Your task to perform on an android device: install app "Booking.com: Hotels and more" Image 0: 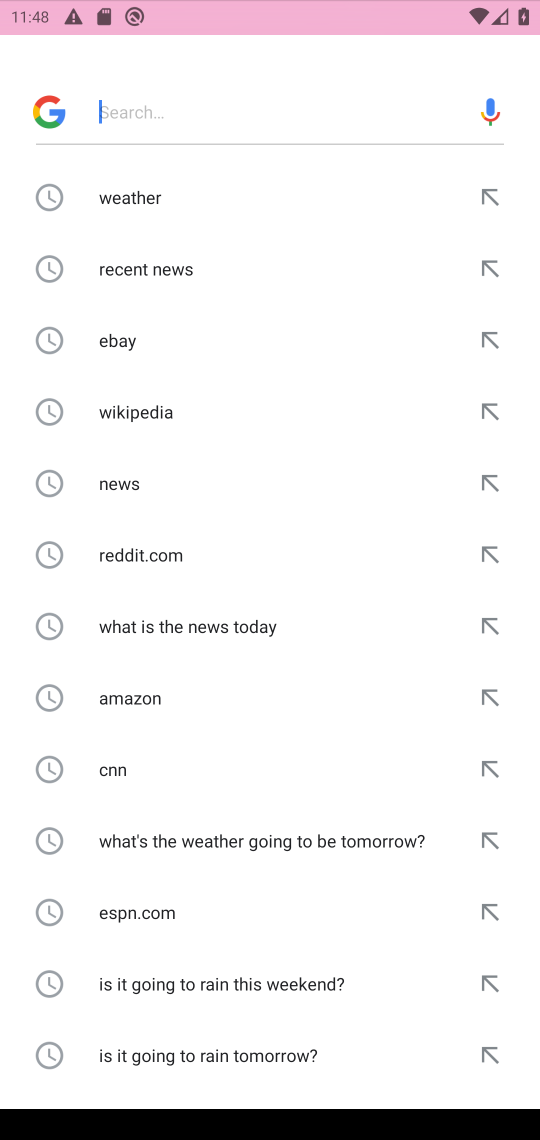
Step 0: press home button
Your task to perform on an android device: install app "Booking.com: Hotels and more" Image 1: 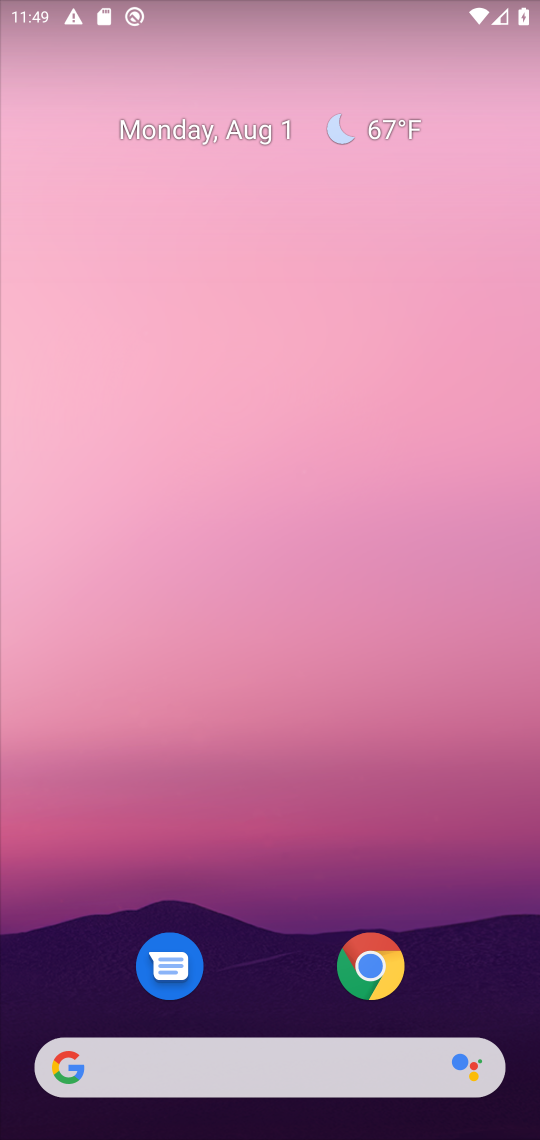
Step 1: drag from (469, 976) to (452, 83)
Your task to perform on an android device: install app "Booking.com: Hotels and more" Image 2: 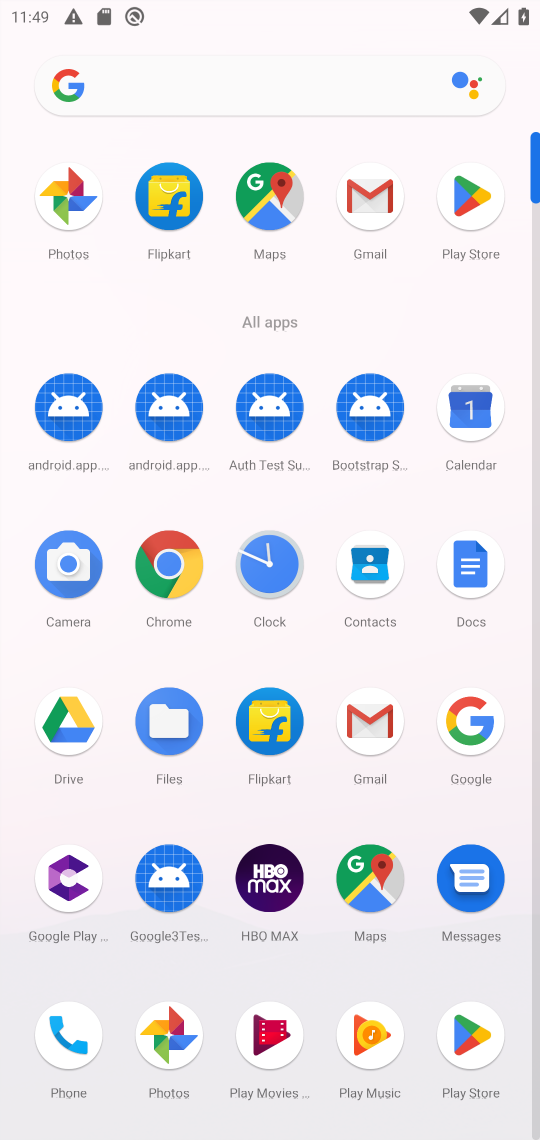
Step 2: click (443, 1033)
Your task to perform on an android device: install app "Booking.com: Hotels and more" Image 3: 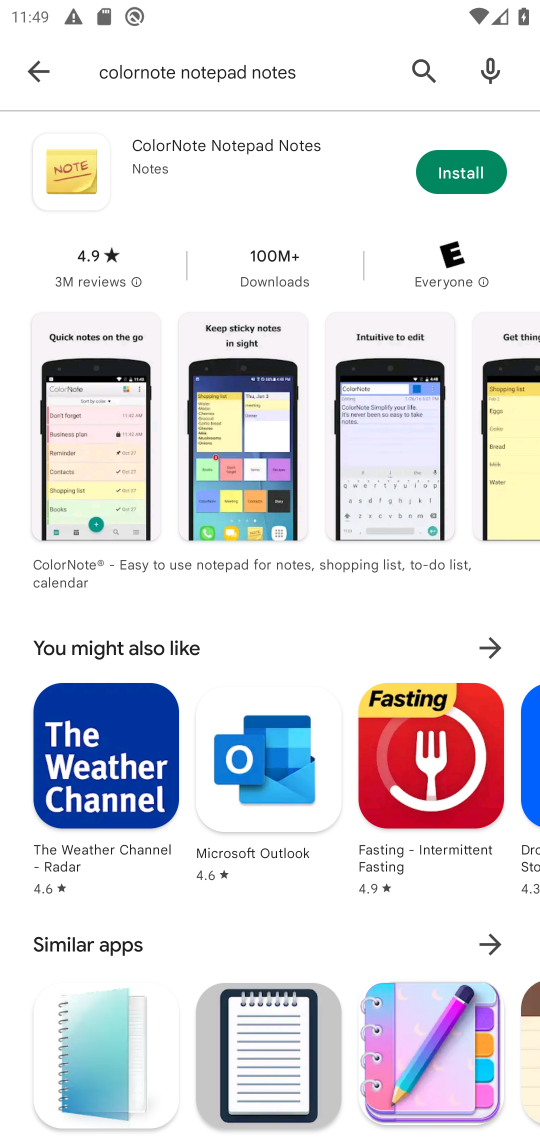
Step 3: click (421, 60)
Your task to perform on an android device: install app "Booking.com: Hotels and more" Image 4: 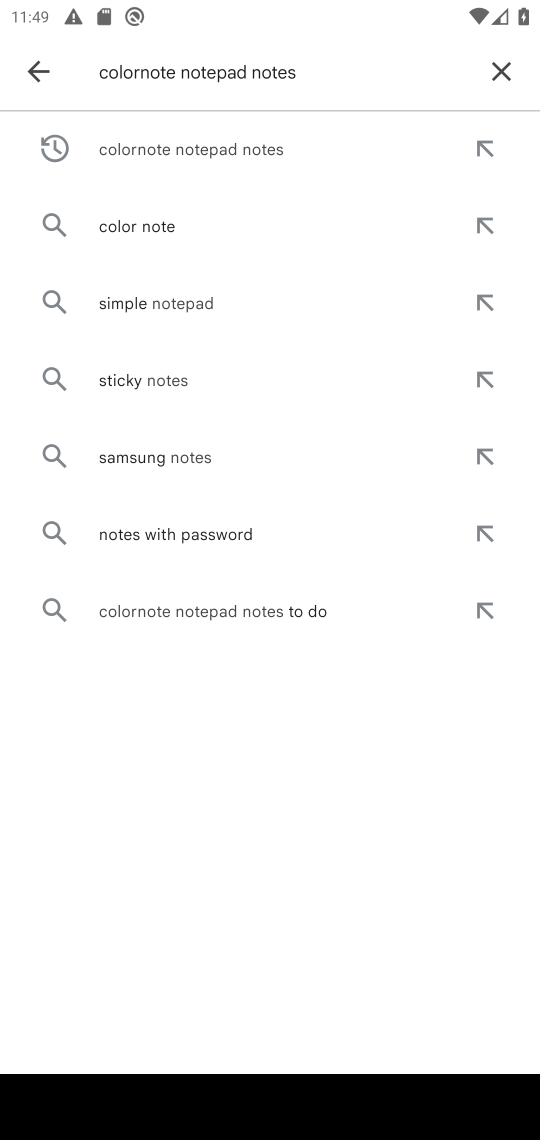
Step 4: click (499, 68)
Your task to perform on an android device: install app "Booking.com: Hotels and more" Image 5: 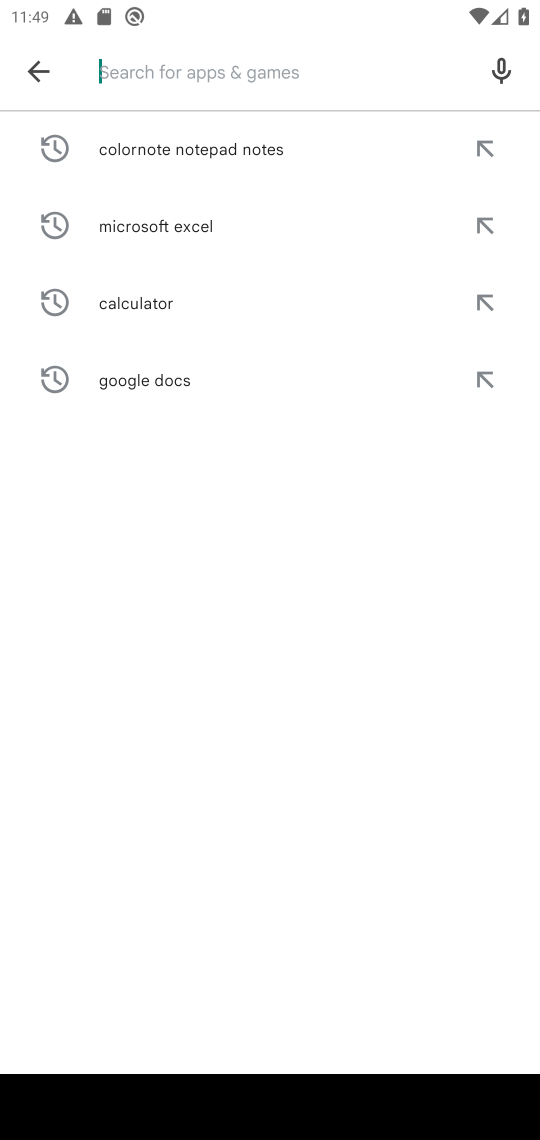
Step 5: type "Booking.com: Hotels and more"
Your task to perform on an android device: install app "Booking.com: Hotels and more" Image 6: 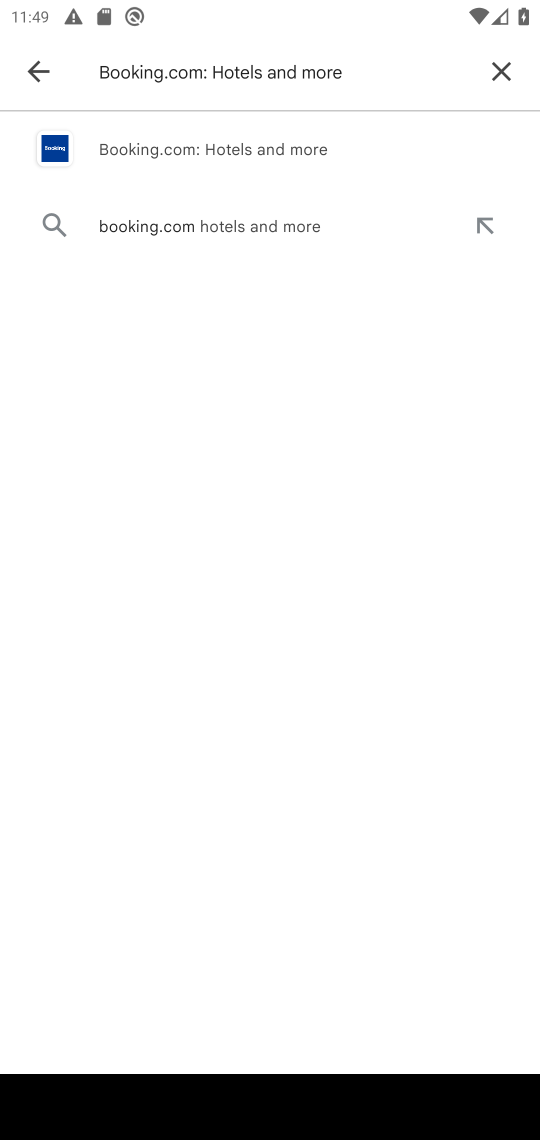
Step 6: click (252, 143)
Your task to perform on an android device: install app "Booking.com: Hotels and more" Image 7: 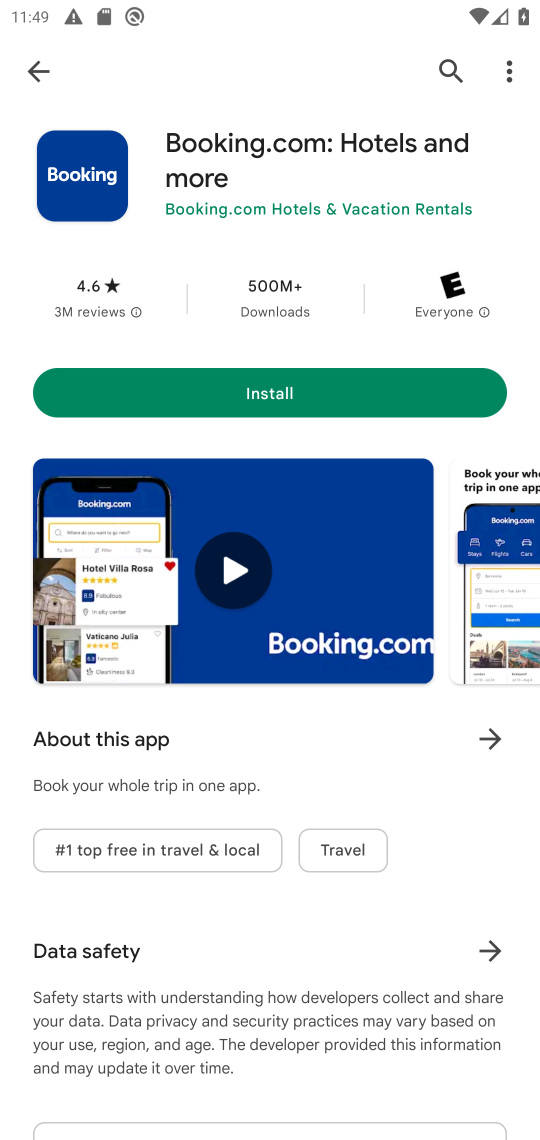
Step 7: click (300, 389)
Your task to perform on an android device: install app "Booking.com: Hotels and more" Image 8: 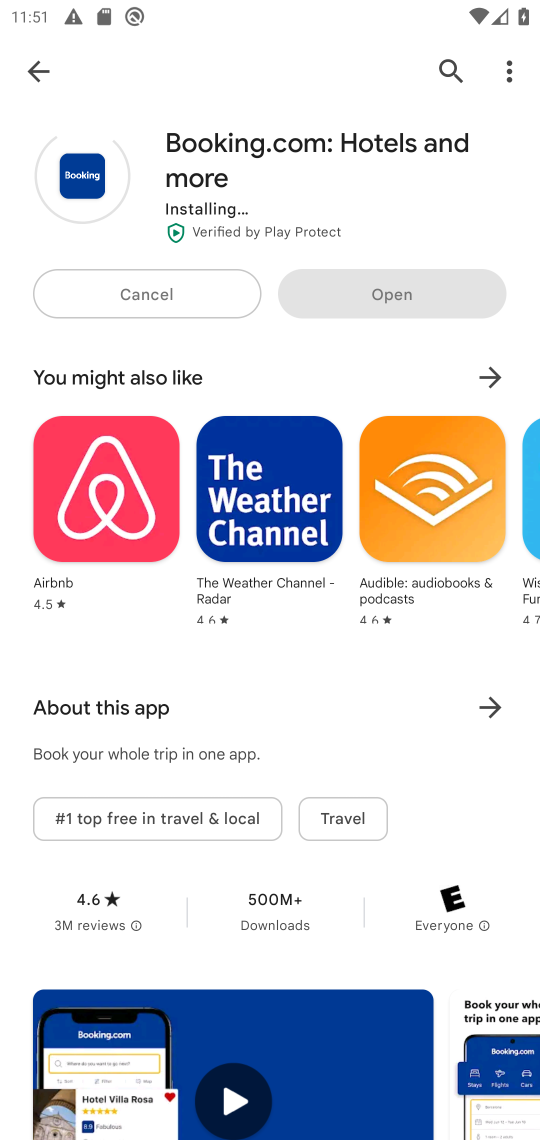
Step 8: task complete